Your task to perform on an android device: Go to wifi settings Image 0: 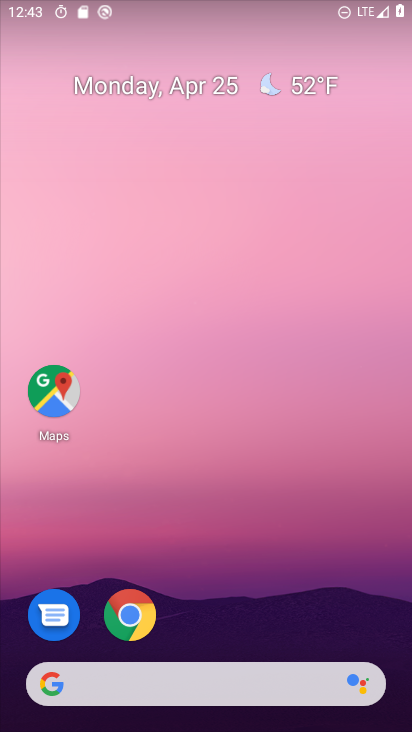
Step 0: drag from (197, 651) to (124, 22)
Your task to perform on an android device: Go to wifi settings Image 1: 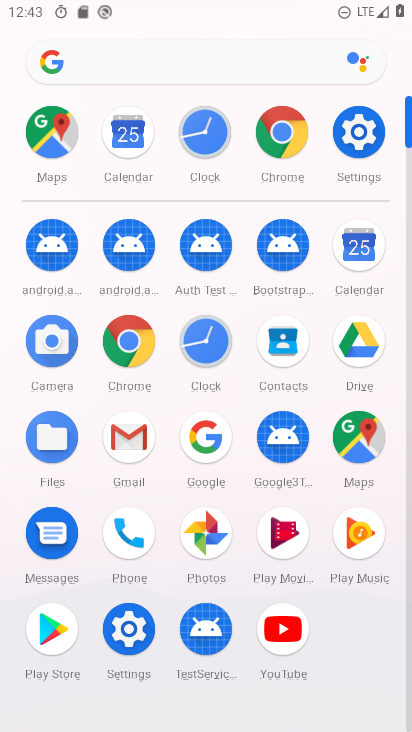
Step 1: click (118, 629)
Your task to perform on an android device: Go to wifi settings Image 2: 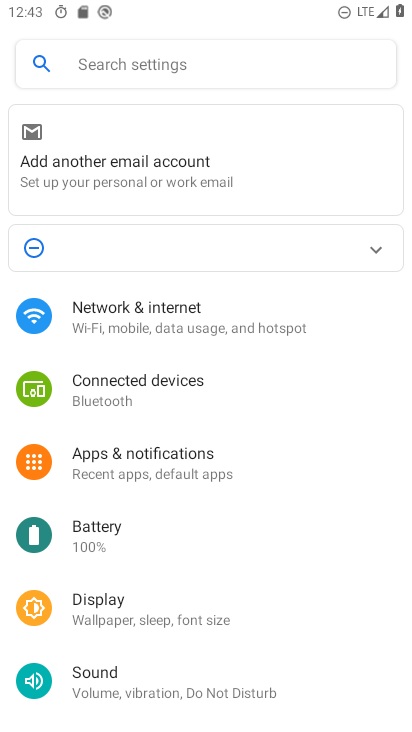
Step 2: click (180, 316)
Your task to perform on an android device: Go to wifi settings Image 3: 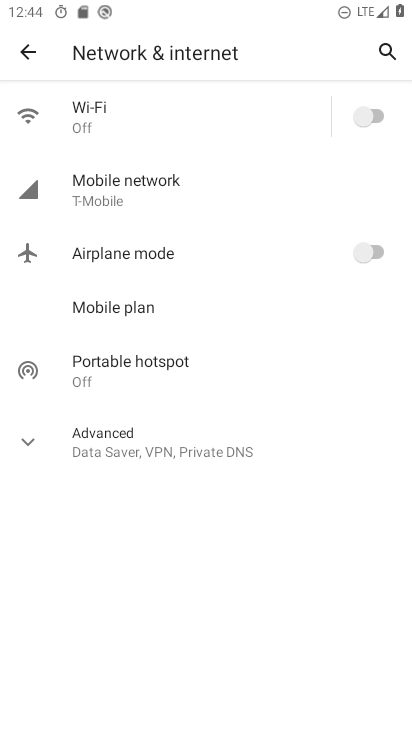
Step 3: click (150, 118)
Your task to perform on an android device: Go to wifi settings Image 4: 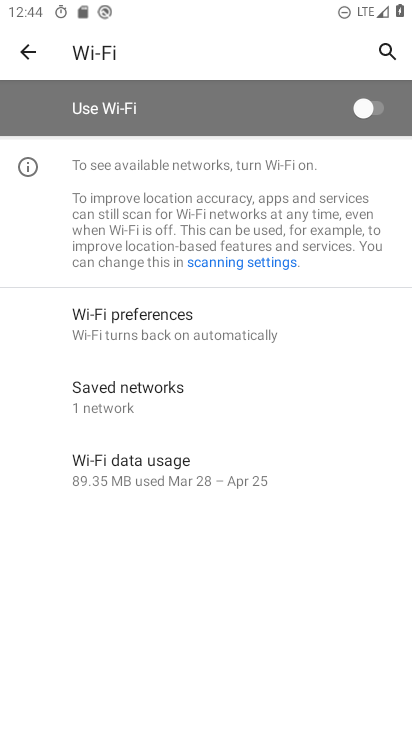
Step 4: task complete